Your task to perform on an android device: Go to wifi settings Image 0: 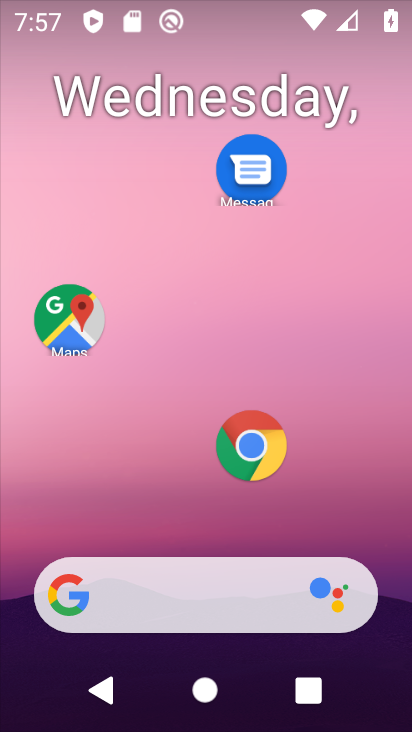
Step 0: drag from (255, 604) to (285, 103)
Your task to perform on an android device: Go to wifi settings Image 1: 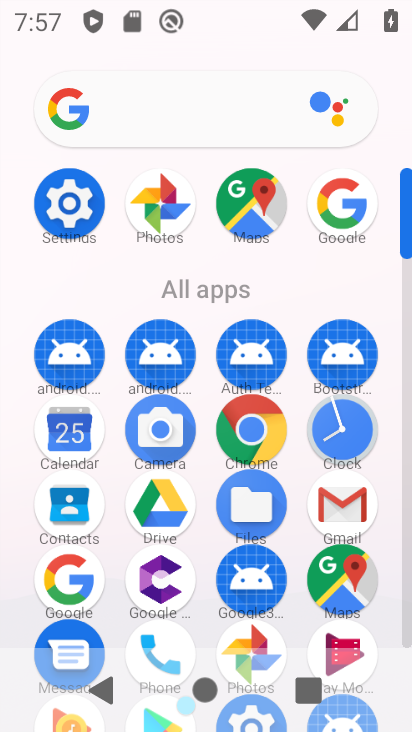
Step 1: click (65, 220)
Your task to perform on an android device: Go to wifi settings Image 2: 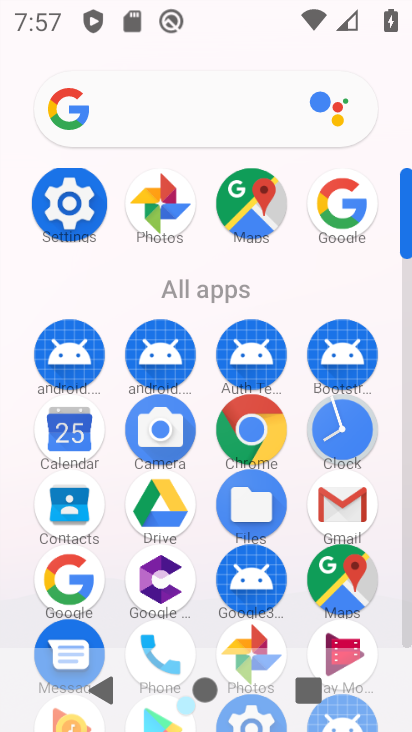
Step 2: click (66, 219)
Your task to perform on an android device: Go to wifi settings Image 3: 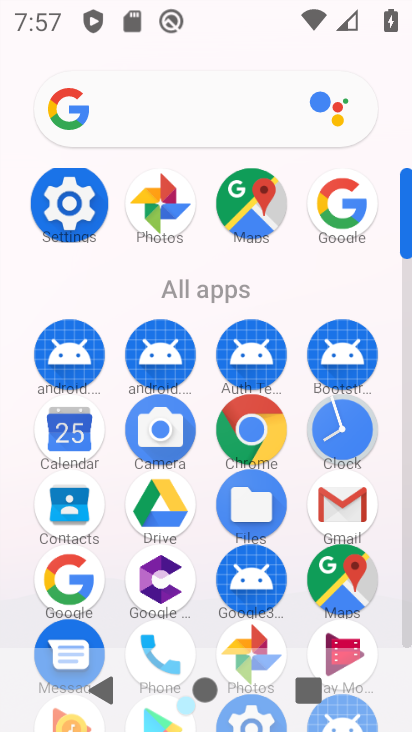
Step 3: click (66, 219)
Your task to perform on an android device: Go to wifi settings Image 4: 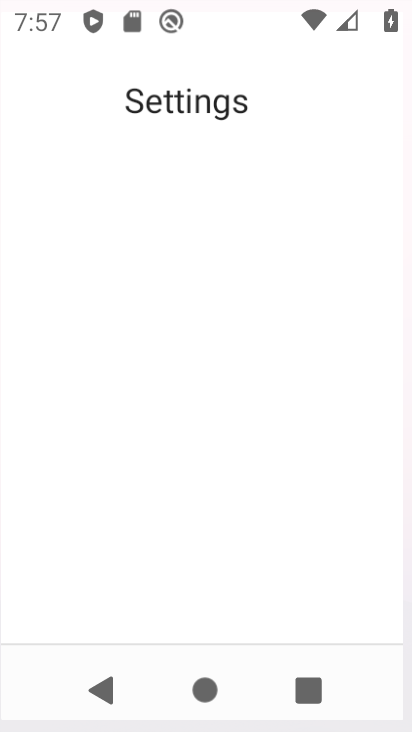
Step 4: click (67, 219)
Your task to perform on an android device: Go to wifi settings Image 5: 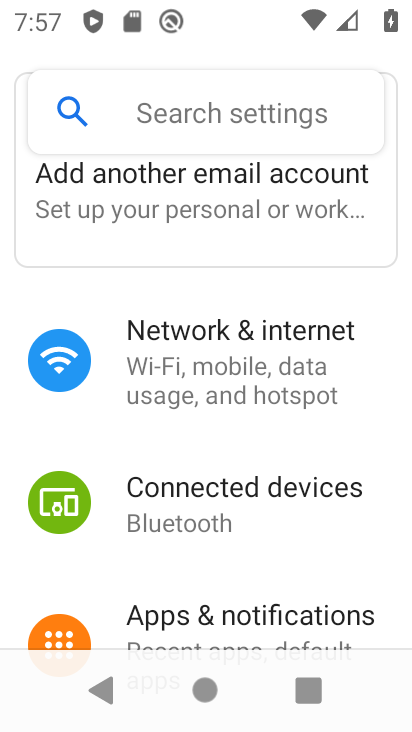
Step 5: click (234, 362)
Your task to perform on an android device: Go to wifi settings Image 6: 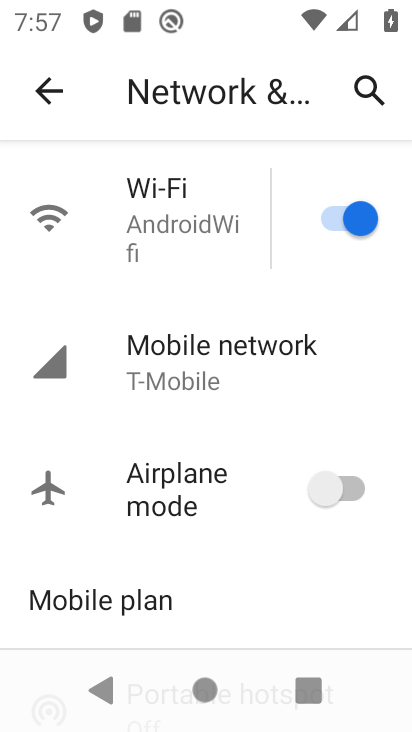
Step 6: task complete